Your task to perform on an android device: Go to battery settings Image 0: 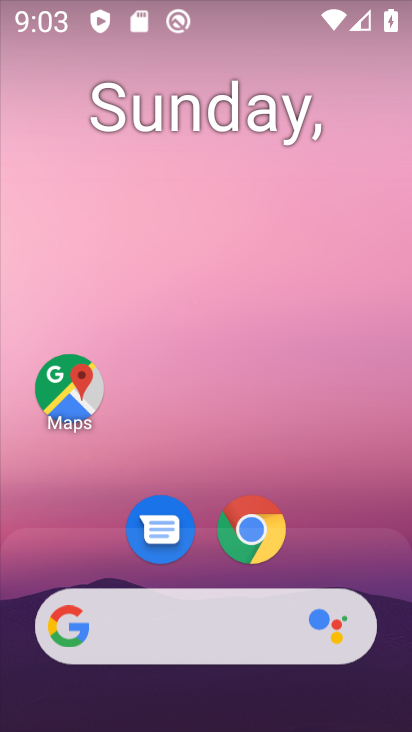
Step 0: drag from (211, 583) to (227, 209)
Your task to perform on an android device: Go to battery settings Image 1: 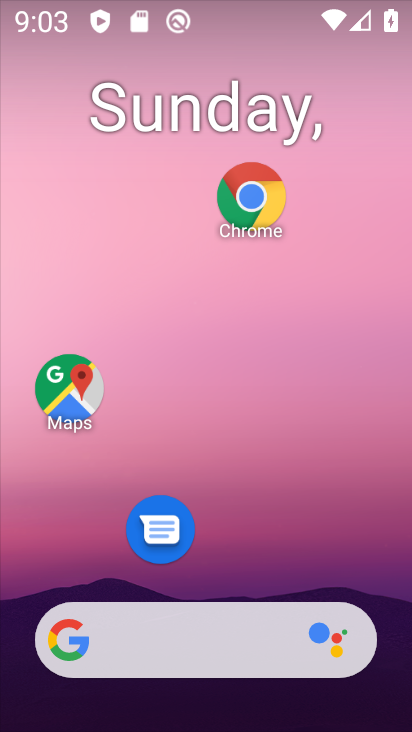
Step 1: drag from (197, 520) to (180, 140)
Your task to perform on an android device: Go to battery settings Image 2: 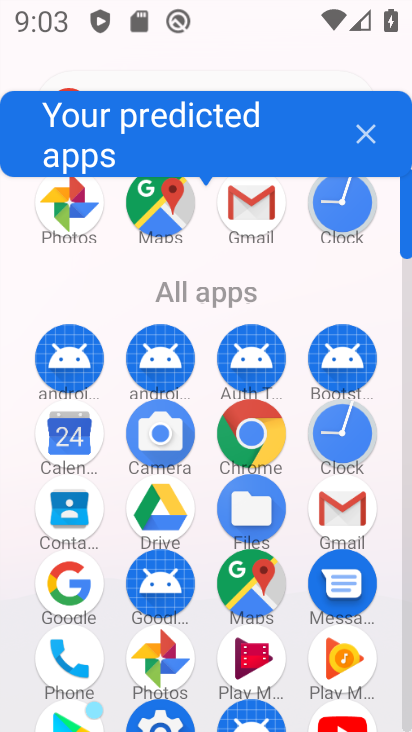
Step 2: click (151, 709)
Your task to perform on an android device: Go to battery settings Image 3: 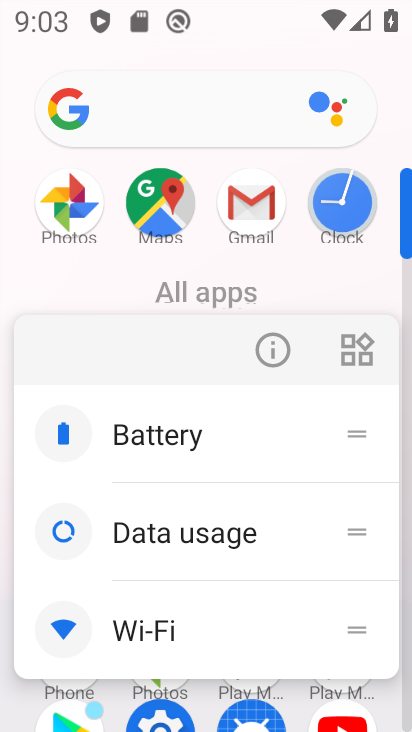
Step 3: click (270, 331)
Your task to perform on an android device: Go to battery settings Image 4: 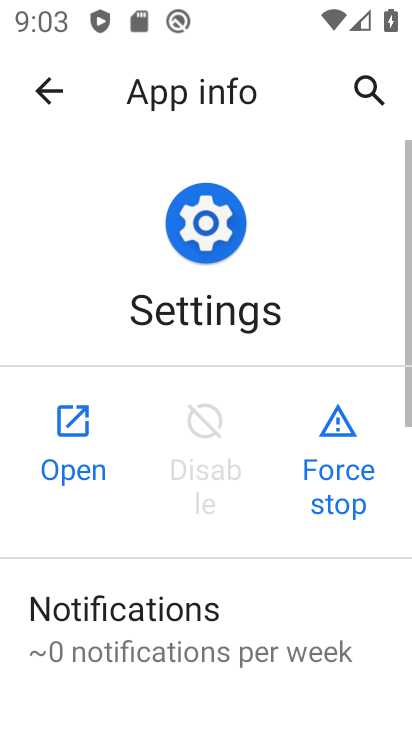
Step 4: drag from (215, 626) to (295, 183)
Your task to perform on an android device: Go to battery settings Image 5: 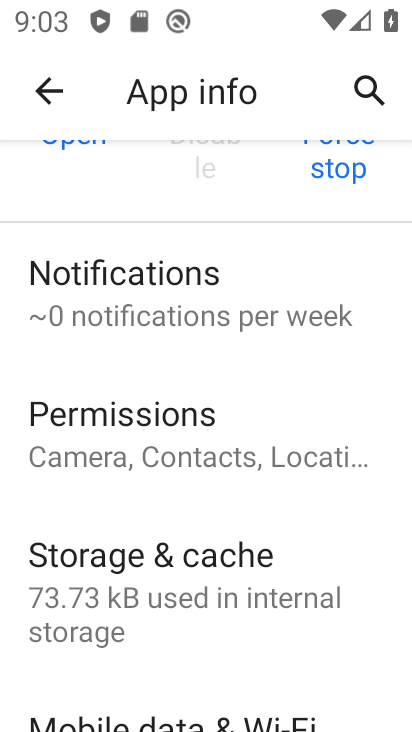
Step 5: drag from (244, 537) to (302, 168)
Your task to perform on an android device: Go to battery settings Image 6: 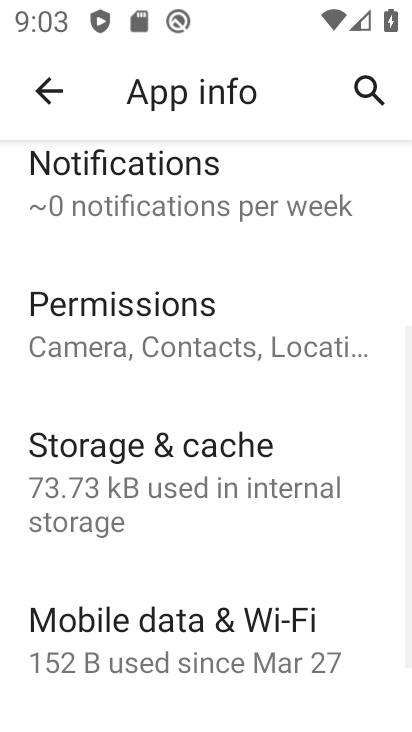
Step 6: drag from (230, 562) to (317, 691)
Your task to perform on an android device: Go to battery settings Image 7: 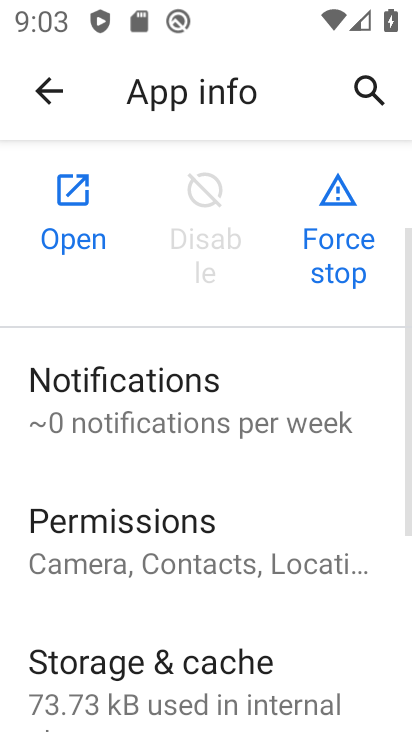
Step 7: click (85, 248)
Your task to perform on an android device: Go to battery settings Image 8: 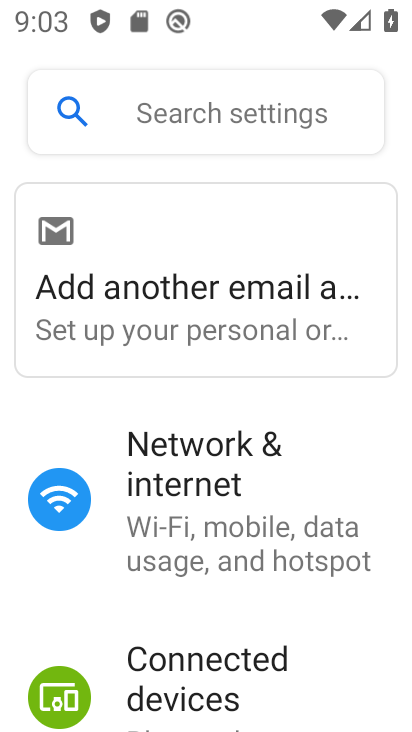
Step 8: drag from (238, 503) to (258, 77)
Your task to perform on an android device: Go to battery settings Image 9: 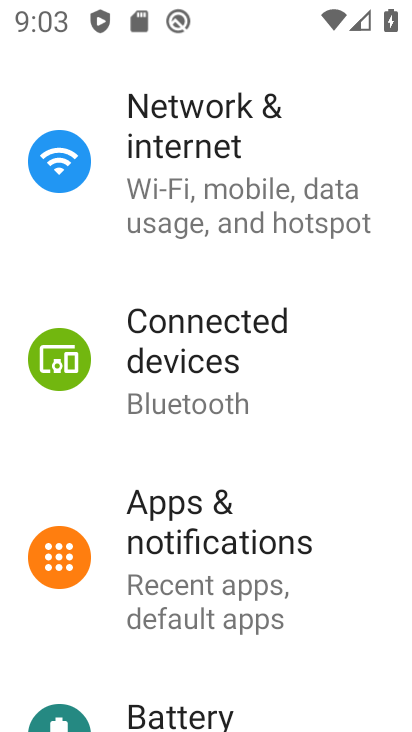
Step 9: drag from (215, 458) to (240, 222)
Your task to perform on an android device: Go to battery settings Image 10: 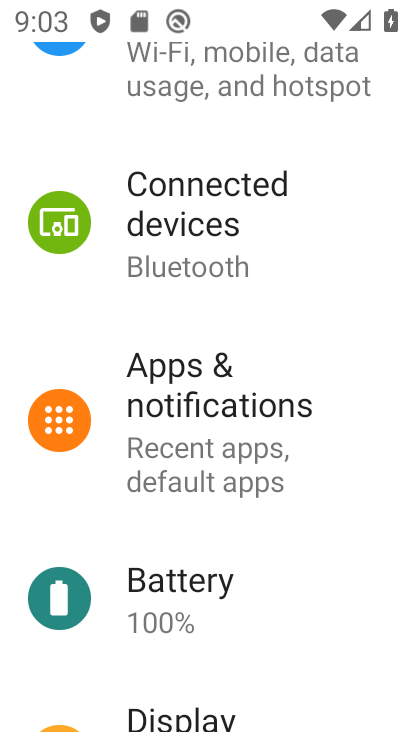
Step 10: click (236, 584)
Your task to perform on an android device: Go to battery settings Image 11: 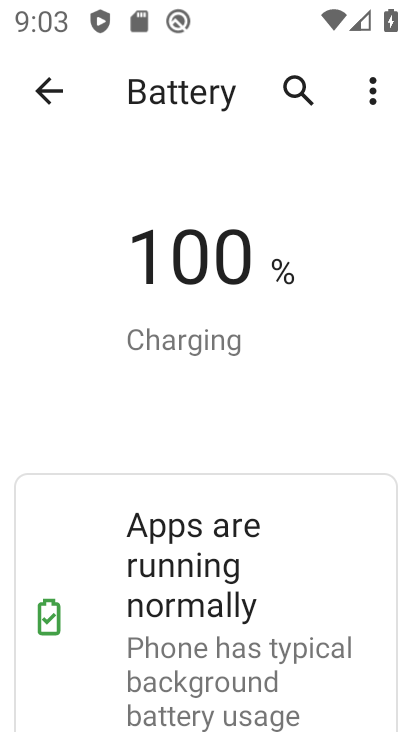
Step 11: task complete